Your task to perform on an android device: open wifi settings Image 0: 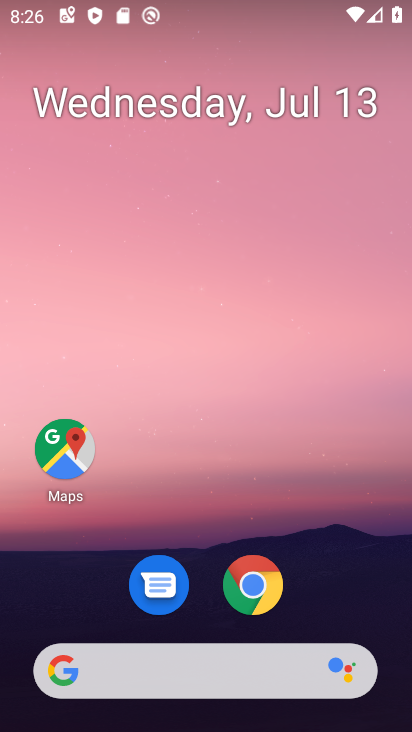
Step 0: drag from (207, 523) to (142, 58)
Your task to perform on an android device: open wifi settings Image 1: 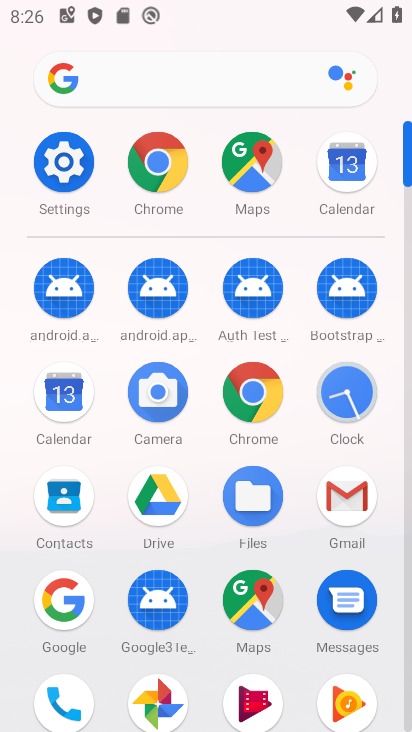
Step 1: click (76, 166)
Your task to perform on an android device: open wifi settings Image 2: 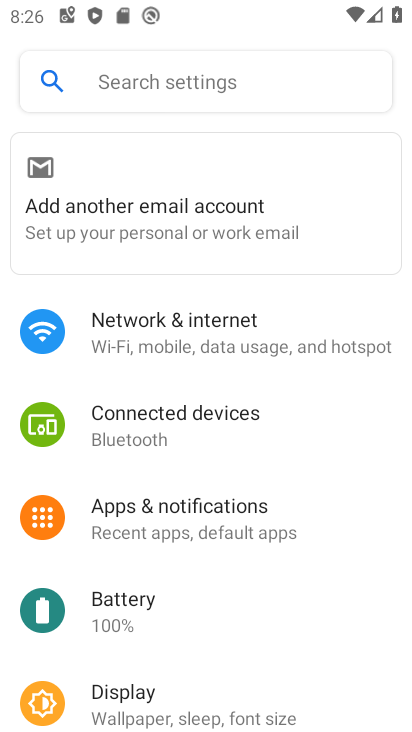
Step 2: click (188, 331)
Your task to perform on an android device: open wifi settings Image 3: 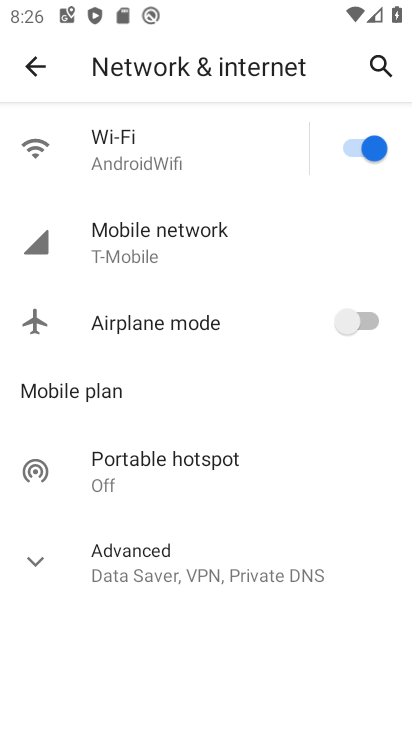
Step 3: click (140, 153)
Your task to perform on an android device: open wifi settings Image 4: 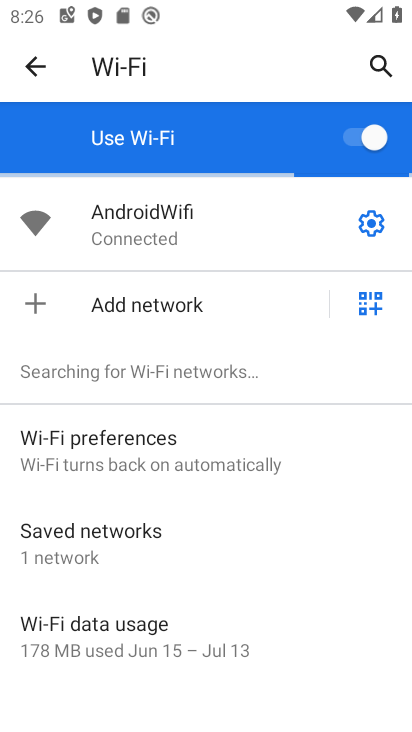
Step 4: task complete